Your task to perform on an android device: Open the calendar and show me this week's events Image 0: 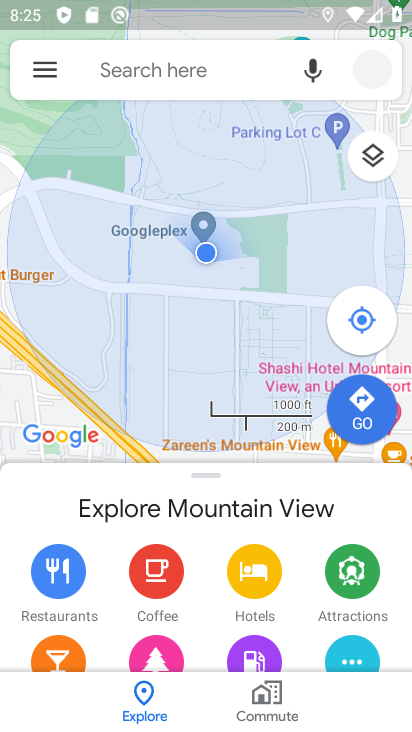
Step 0: press home button
Your task to perform on an android device: Open the calendar and show me this week's events Image 1: 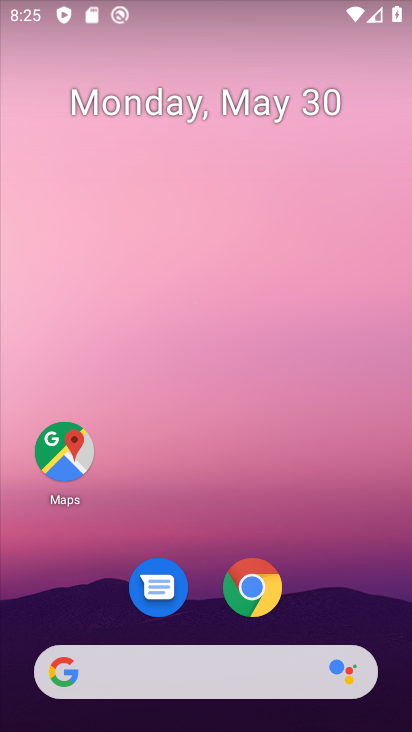
Step 1: drag from (198, 569) to (187, 48)
Your task to perform on an android device: Open the calendar and show me this week's events Image 2: 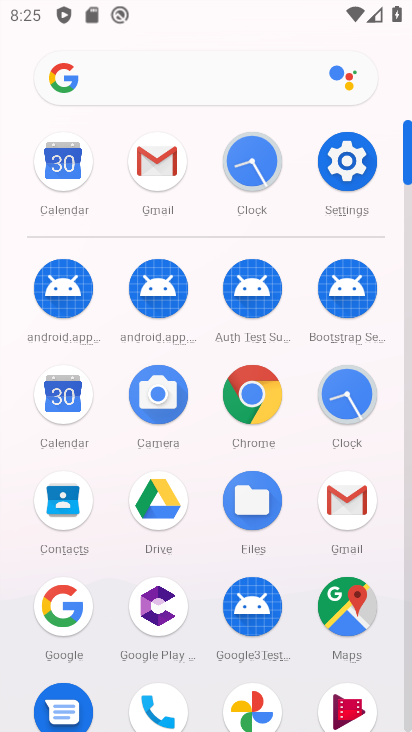
Step 2: click (80, 389)
Your task to perform on an android device: Open the calendar and show me this week's events Image 3: 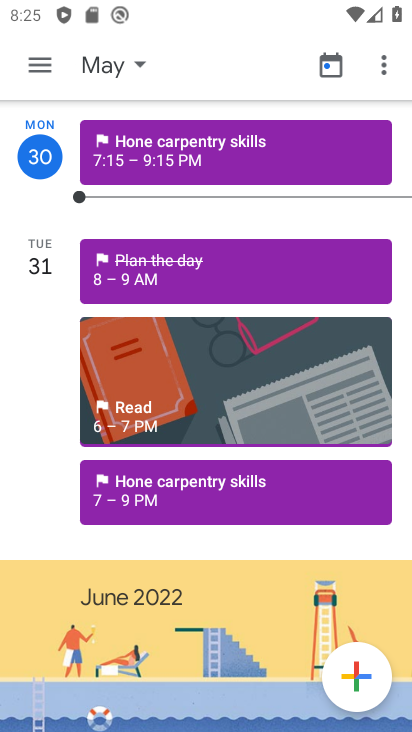
Step 3: click (137, 62)
Your task to perform on an android device: Open the calendar and show me this week's events Image 4: 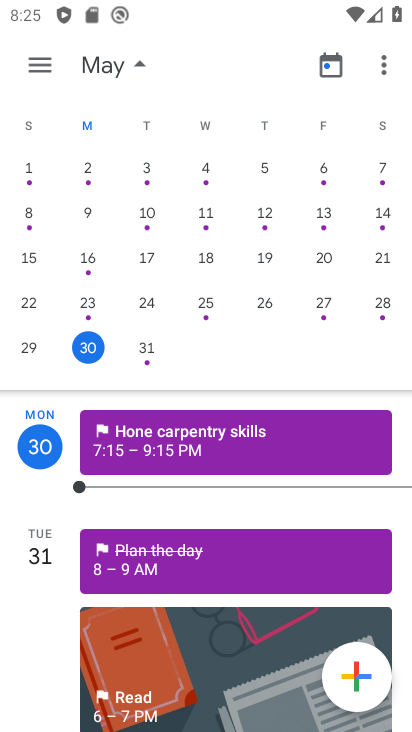
Step 4: click (45, 67)
Your task to perform on an android device: Open the calendar and show me this week's events Image 5: 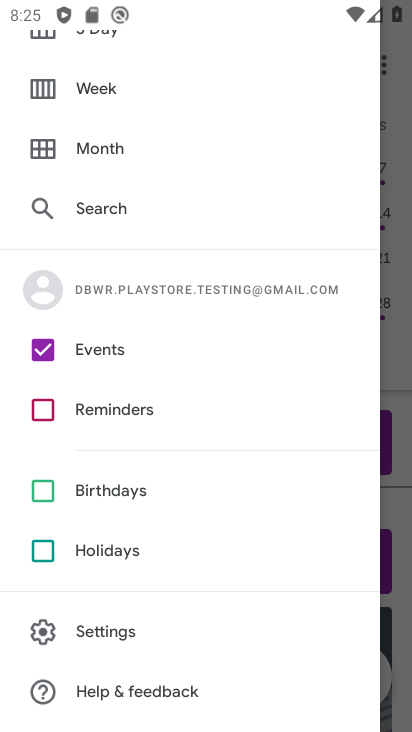
Step 5: click (86, 100)
Your task to perform on an android device: Open the calendar and show me this week's events Image 6: 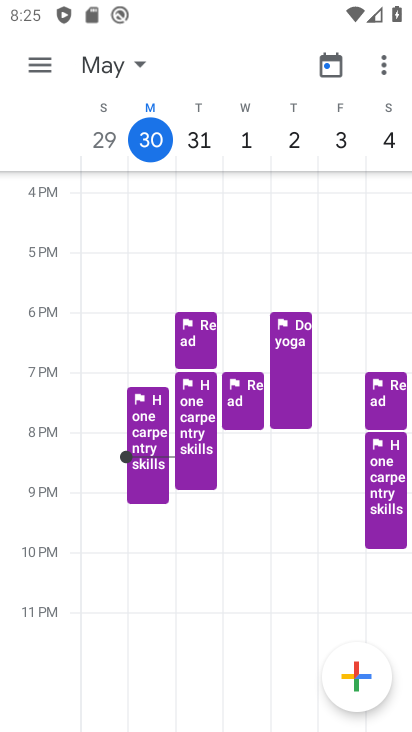
Step 6: task complete